Your task to perform on an android device: Go to settings Image 0: 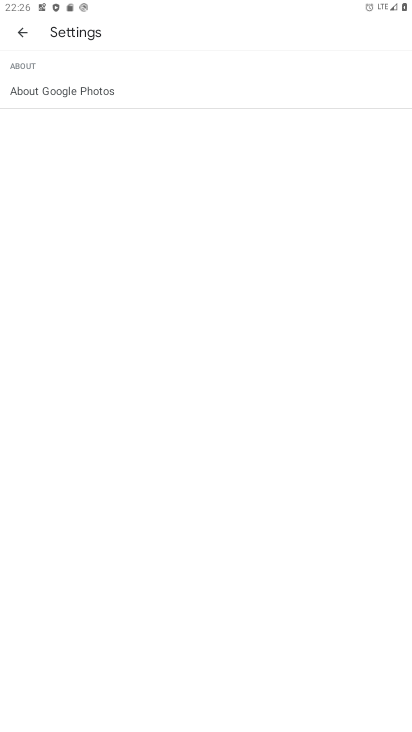
Step 0: press home button
Your task to perform on an android device: Go to settings Image 1: 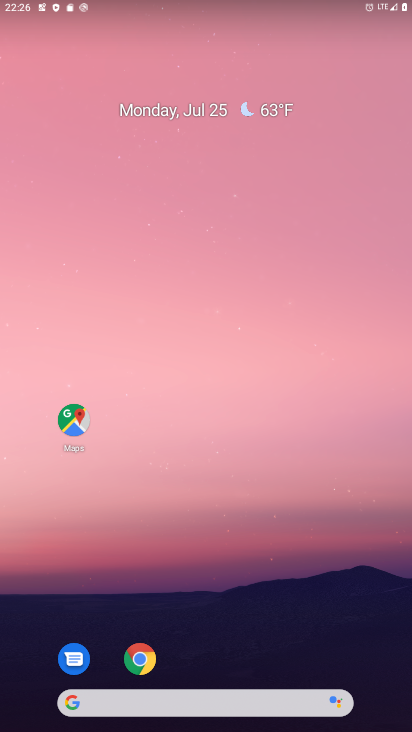
Step 1: drag from (217, 724) to (218, 94)
Your task to perform on an android device: Go to settings Image 2: 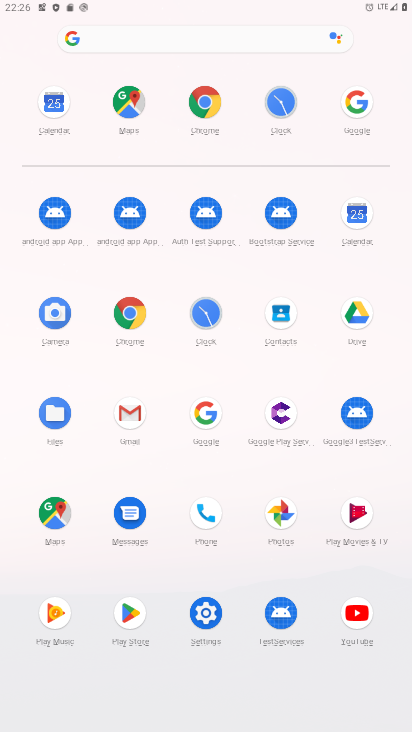
Step 2: click (205, 612)
Your task to perform on an android device: Go to settings Image 3: 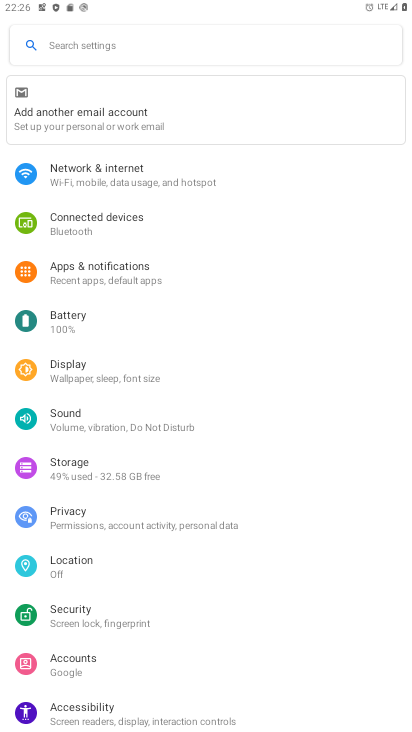
Step 3: task complete